Your task to perform on an android device: What is the recent news? Image 0: 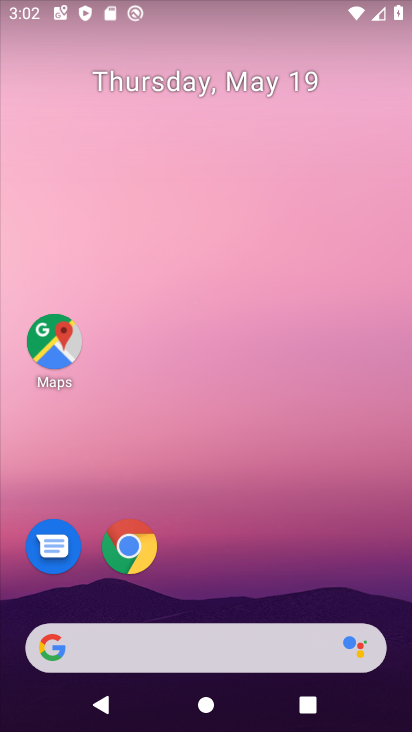
Step 0: drag from (259, 578) to (186, 134)
Your task to perform on an android device: What is the recent news? Image 1: 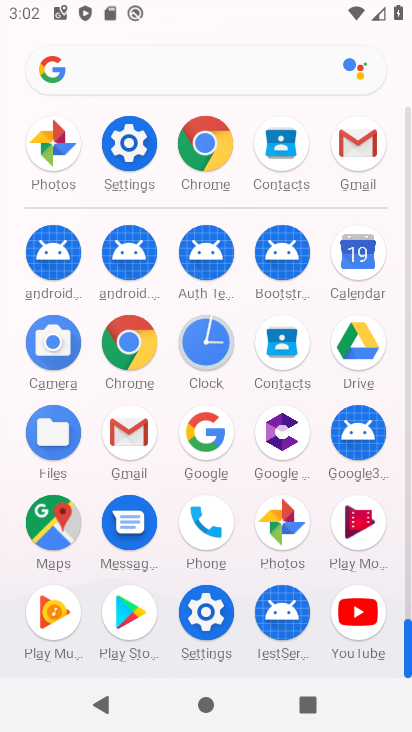
Step 1: click (203, 430)
Your task to perform on an android device: What is the recent news? Image 2: 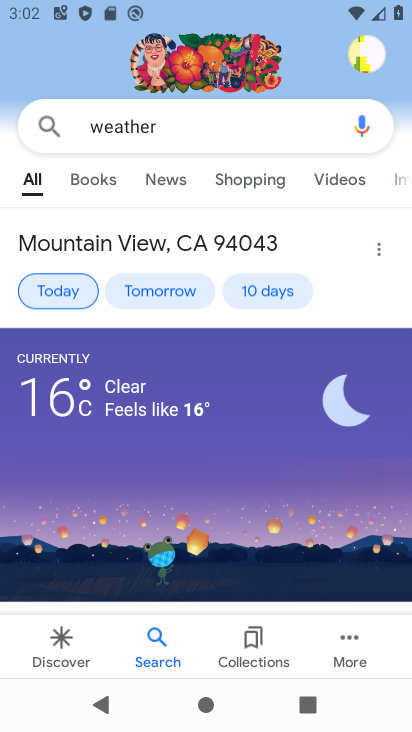
Step 2: click (210, 129)
Your task to perform on an android device: What is the recent news? Image 3: 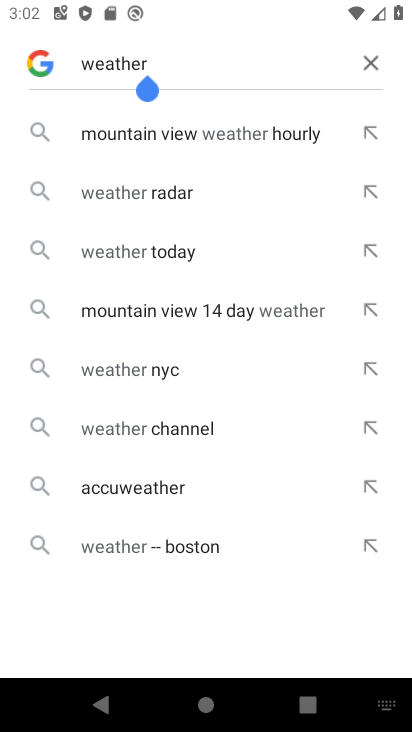
Step 3: click (373, 62)
Your task to perform on an android device: What is the recent news? Image 4: 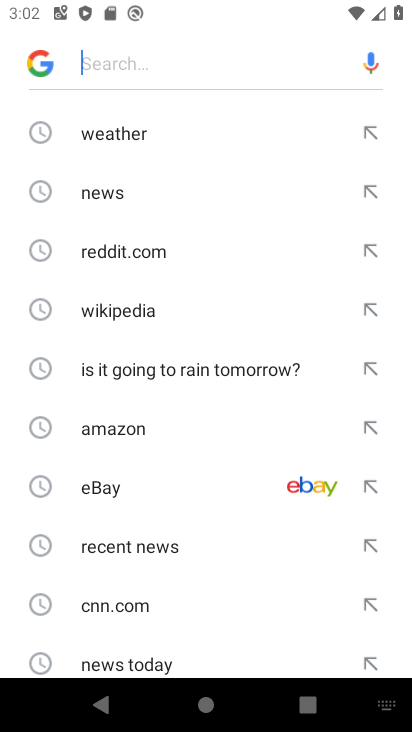
Step 4: type "recent news"
Your task to perform on an android device: What is the recent news? Image 5: 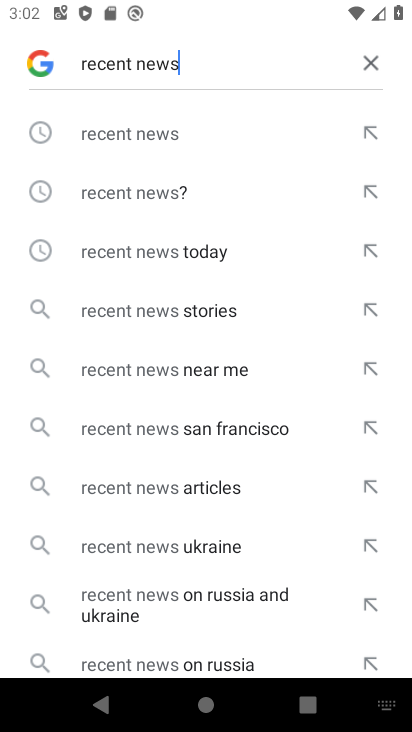
Step 5: click (142, 134)
Your task to perform on an android device: What is the recent news? Image 6: 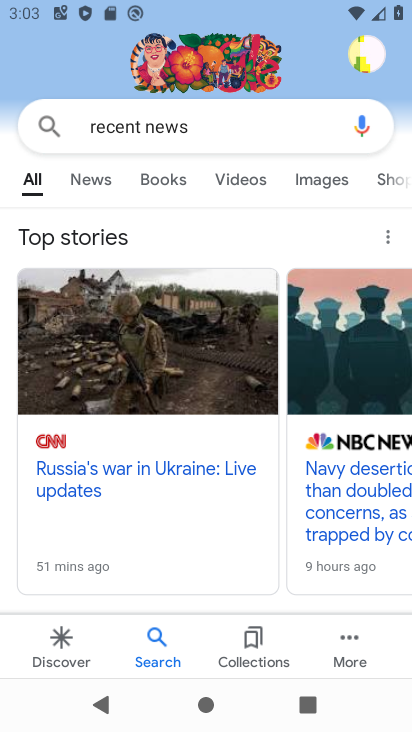
Step 6: click (136, 515)
Your task to perform on an android device: What is the recent news? Image 7: 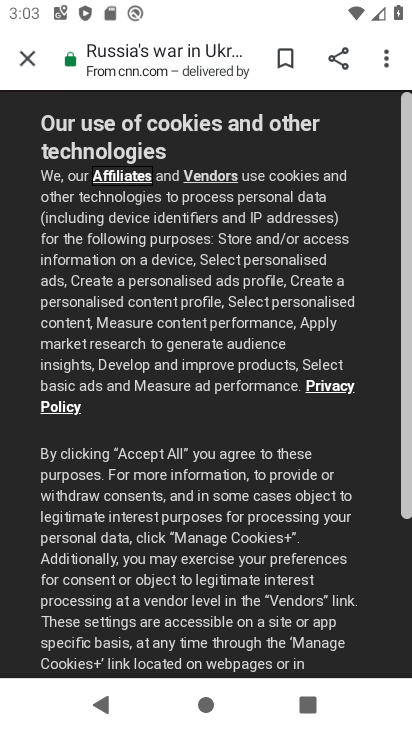
Step 7: task complete